Your task to perform on an android device: How much does a 3 bedroom apartment rent for in Seattle? Image 0: 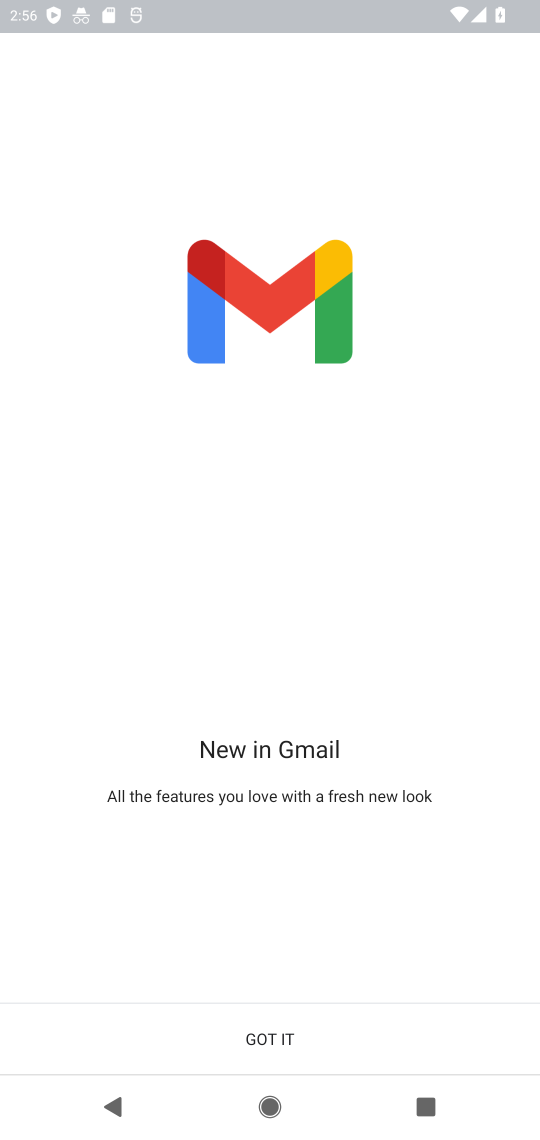
Step 0: press home button
Your task to perform on an android device: How much does a 3 bedroom apartment rent for in Seattle? Image 1: 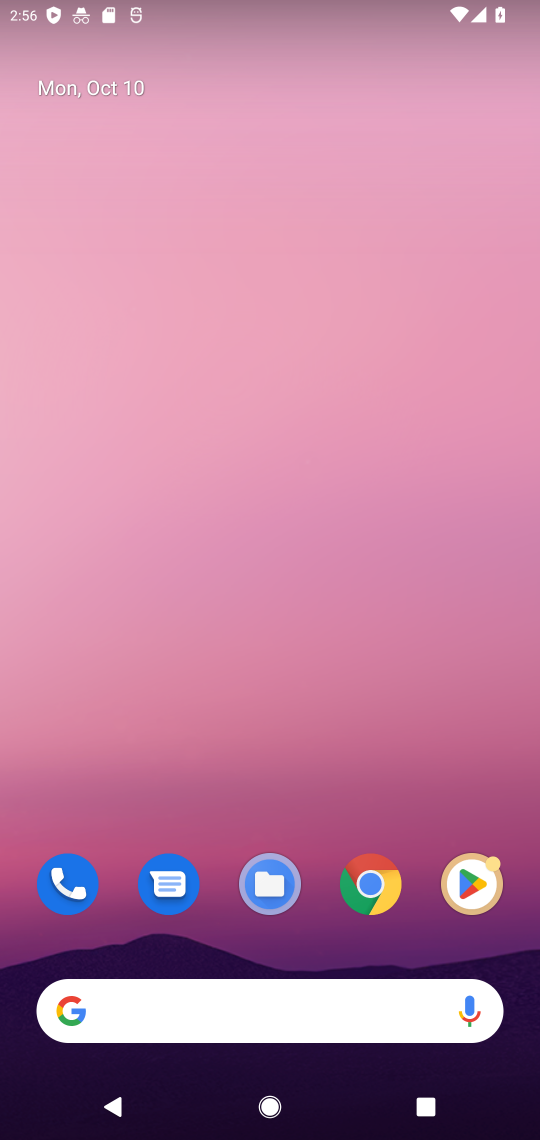
Step 1: click (263, 1016)
Your task to perform on an android device: How much does a 3 bedroom apartment rent for in Seattle? Image 2: 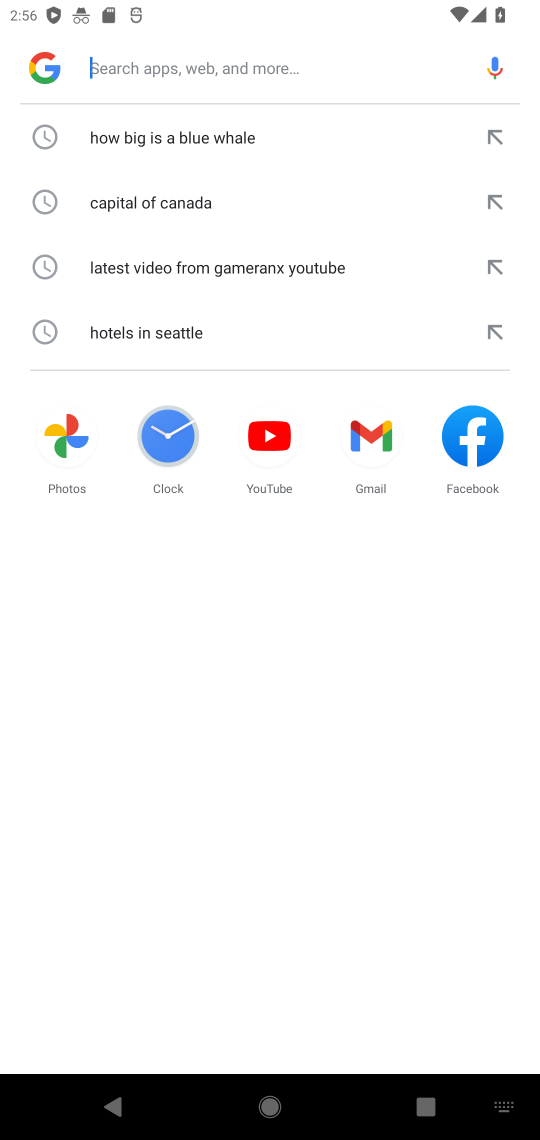
Step 2: type "How much does a 3 bedroom apartment rent for in Seattle?"
Your task to perform on an android device: How much does a 3 bedroom apartment rent for in Seattle? Image 3: 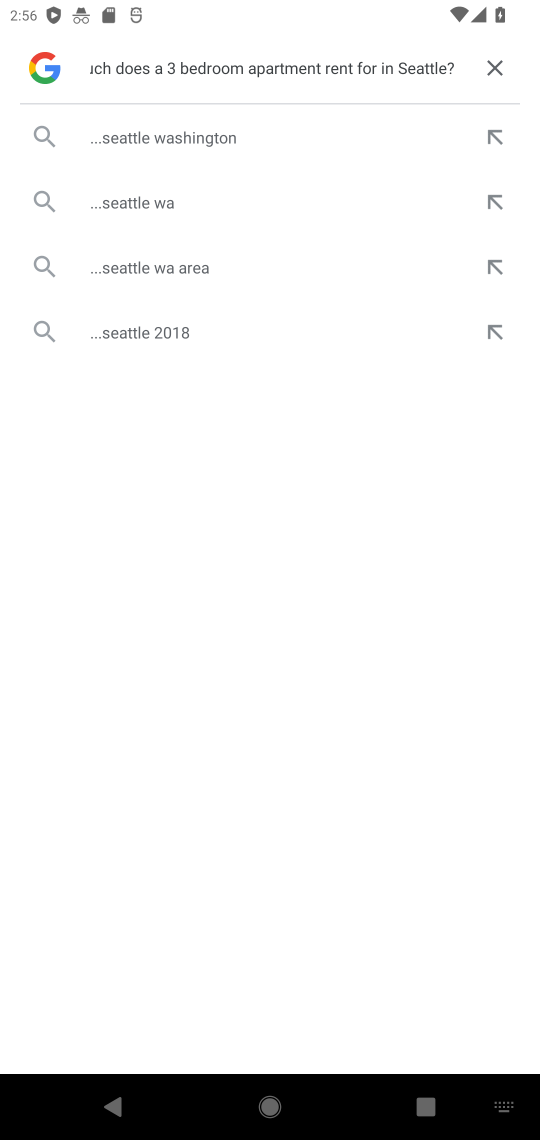
Step 3: click (200, 328)
Your task to perform on an android device: How much does a 3 bedroom apartment rent for in Seattle? Image 4: 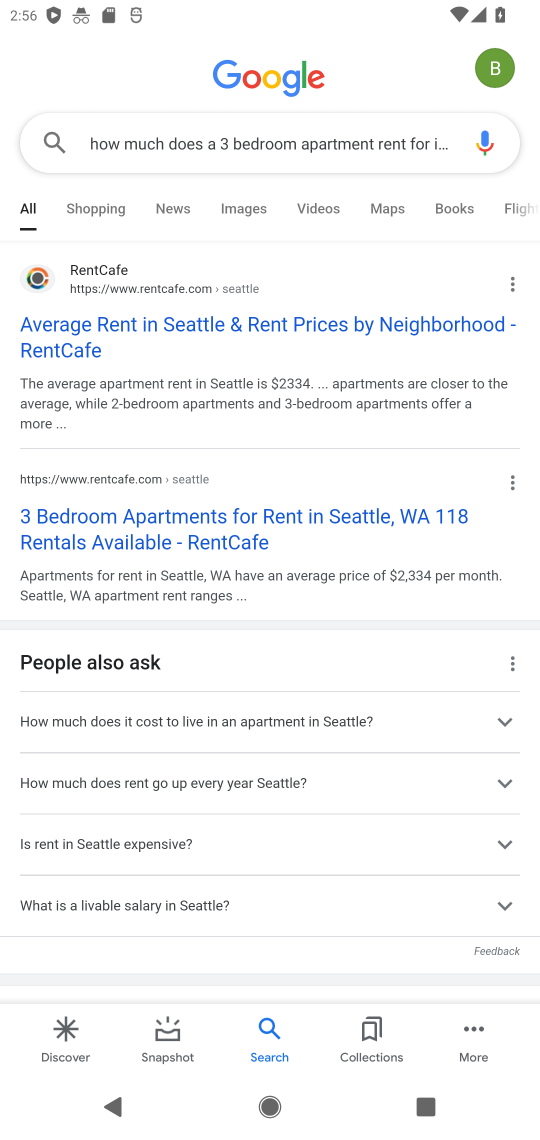
Step 4: click (144, 526)
Your task to perform on an android device: How much does a 3 bedroom apartment rent for in Seattle? Image 5: 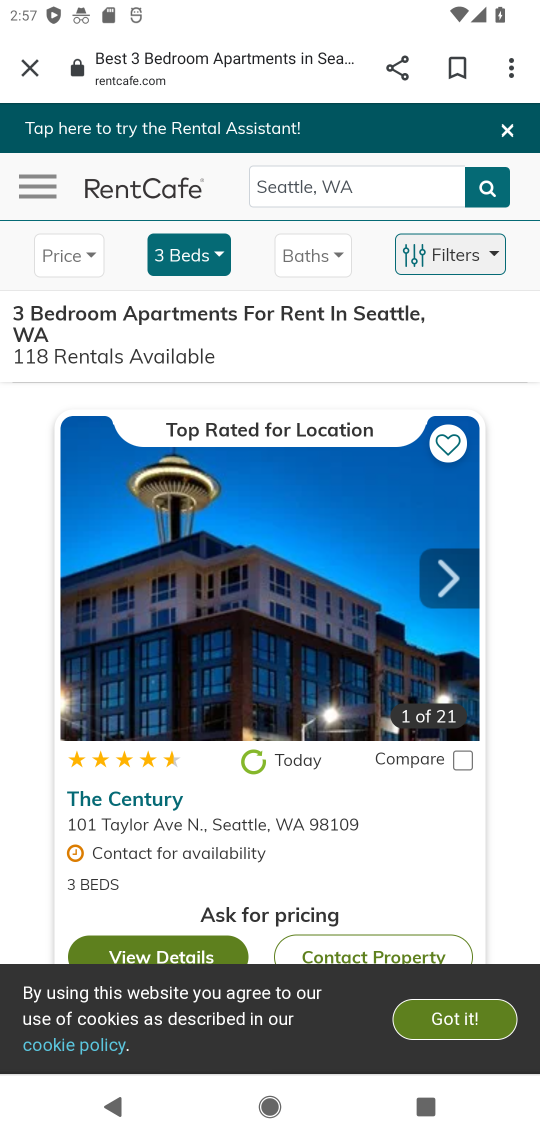
Step 5: click (460, 1023)
Your task to perform on an android device: How much does a 3 bedroom apartment rent for in Seattle? Image 6: 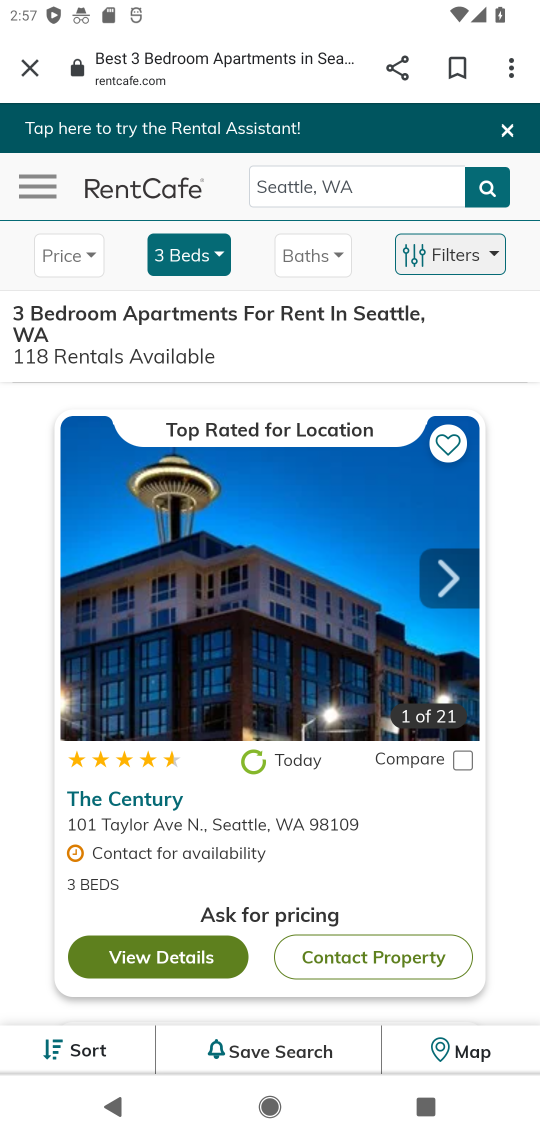
Step 6: task complete